Your task to perform on an android device: change the clock style Image 0: 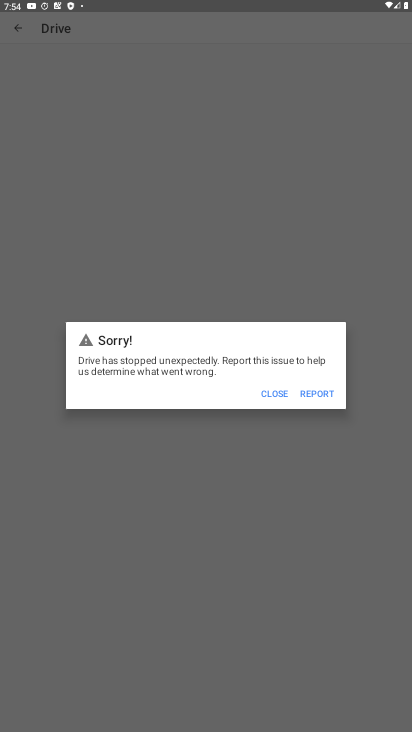
Step 0: press home button
Your task to perform on an android device: change the clock style Image 1: 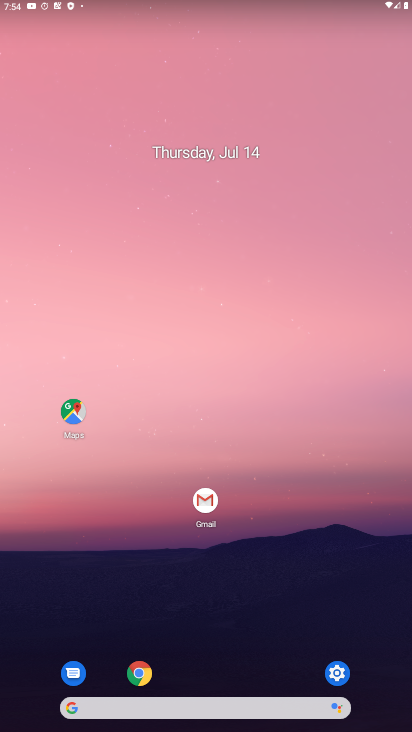
Step 1: drag from (253, 716) to (251, 240)
Your task to perform on an android device: change the clock style Image 2: 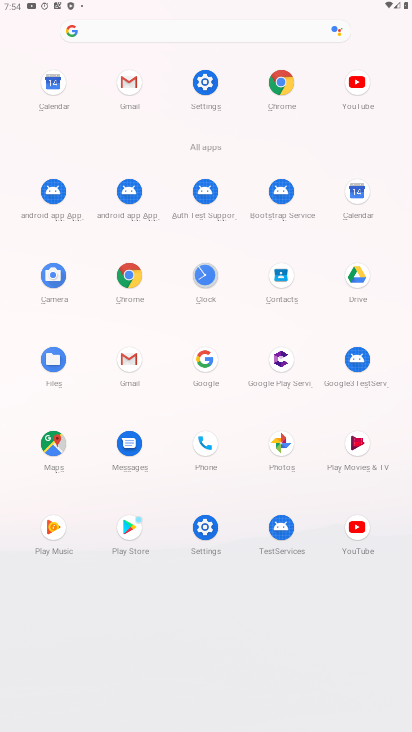
Step 2: click (203, 276)
Your task to perform on an android device: change the clock style Image 3: 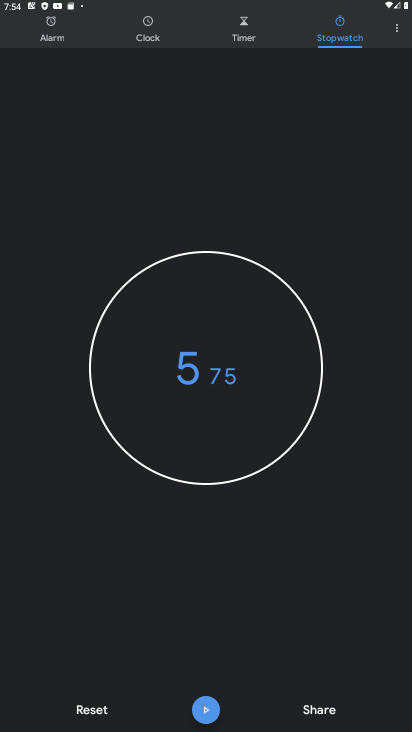
Step 3: click (402, 39)
Your task to perform on an android device: change the clock style Image 4: 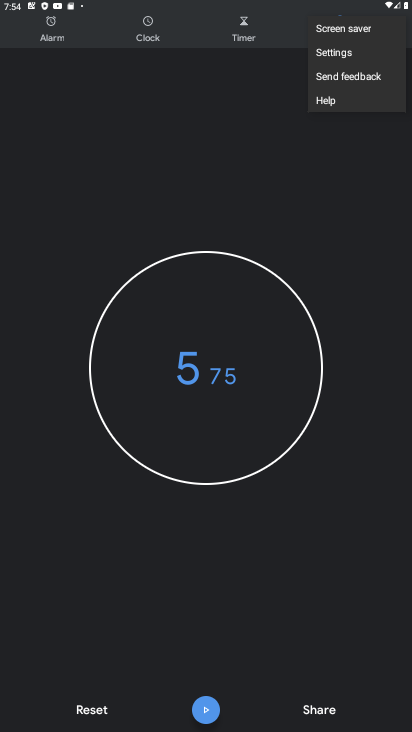
Step 4: click (355, 51)
Your task to perform on an android device: change the clock style Image 5: 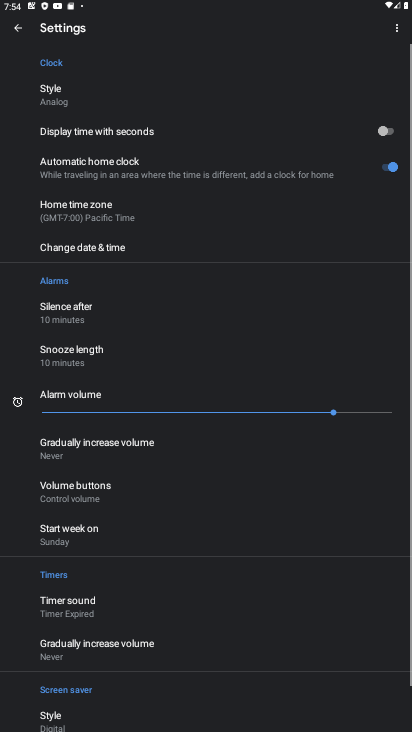
Step 5: click (137, 105)
Your task to perform on an android device: change the clock style Image 6: 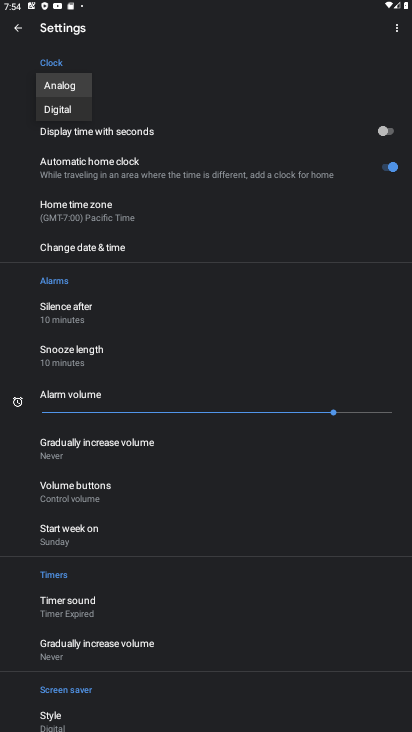
Step 6: click (61, 112)
Your task to perform on an android device: change the clock style Image 7: 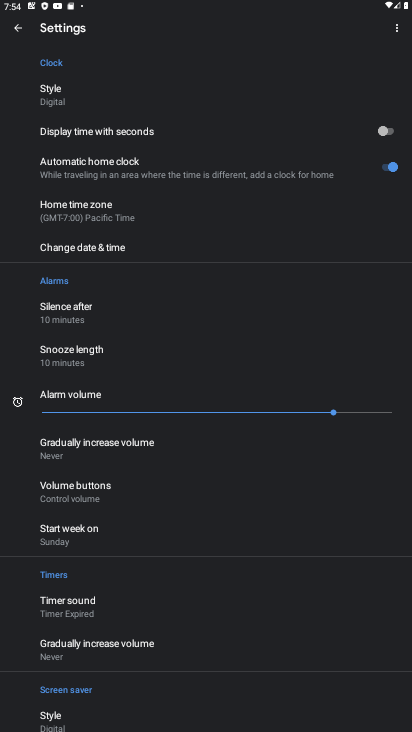
Step 7: task complete